Your task to perform on an android device: Set the phone to "Do not disturb". Image 0: 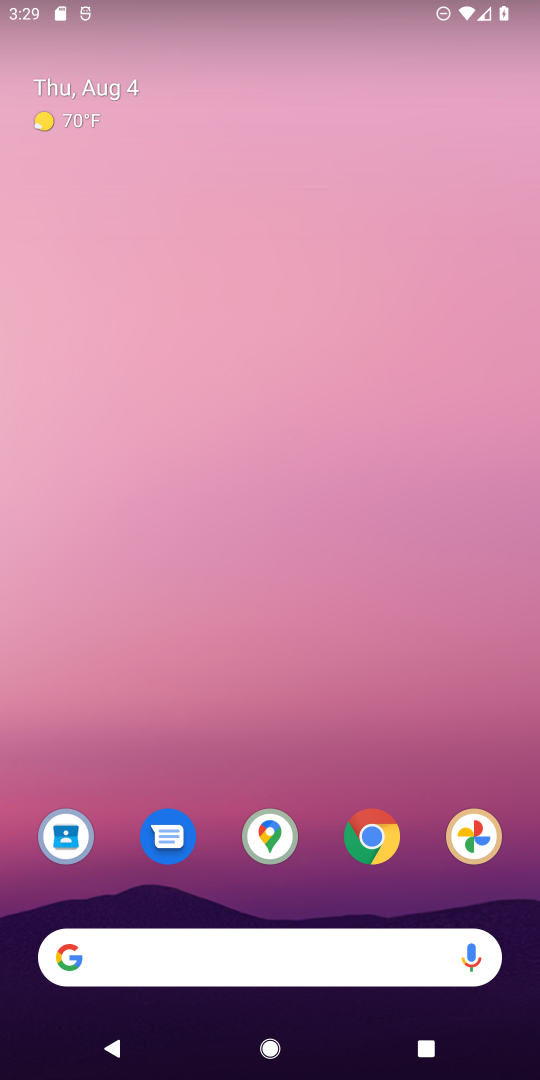
Step 0: drag from (184, 1038) to (300, 92)
Your task to perform on an android device: Set the phone to "Do not disturb". Image 1: 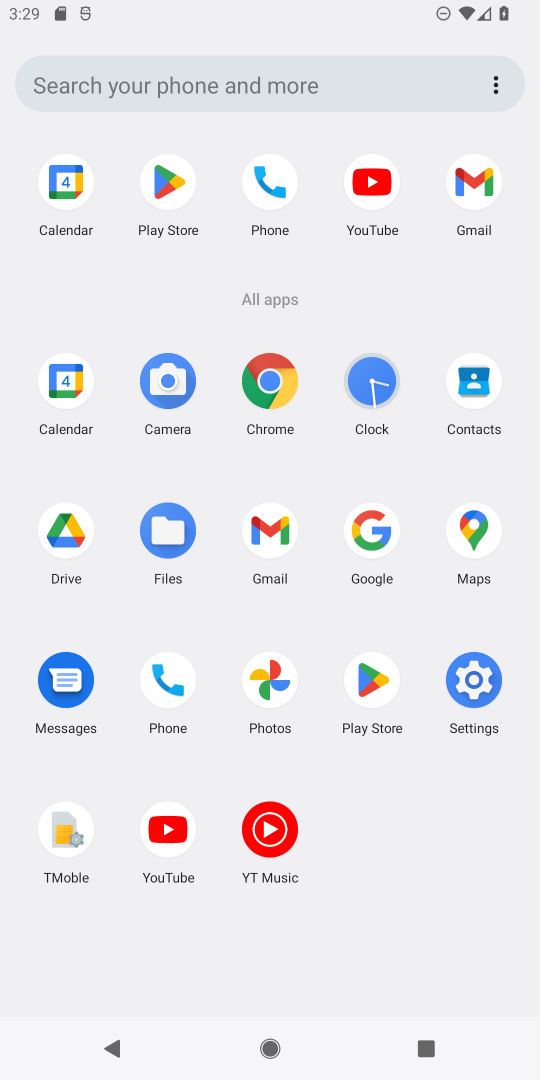
Step 1: click (483, 684)
Your task to perform on an android device: Set the phone to "Do not disturb". Image 2: 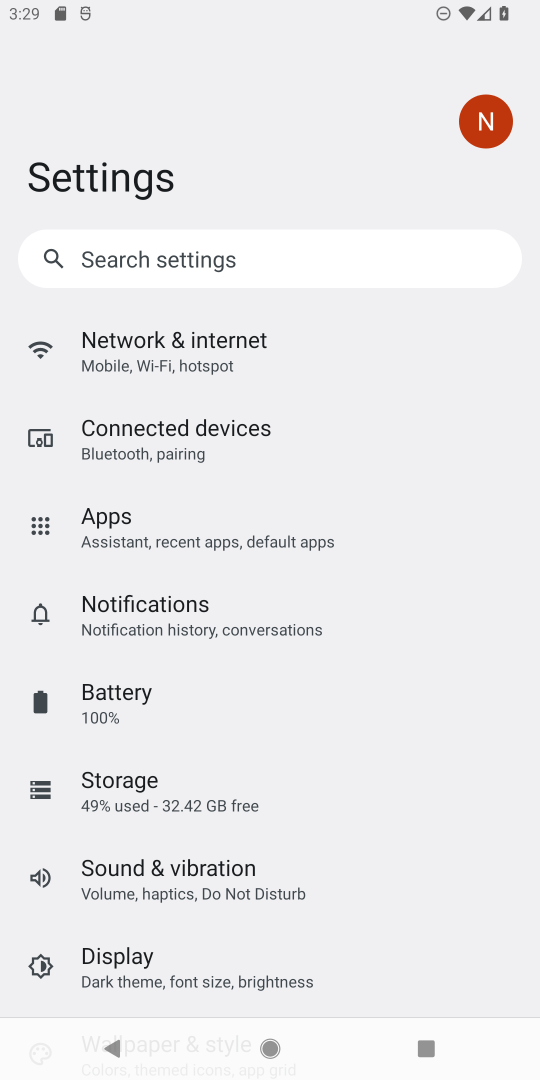
Step 2: click (136, 886)
Your task to perform on an android device: Set the phone to "Do not disturb". Image 3: 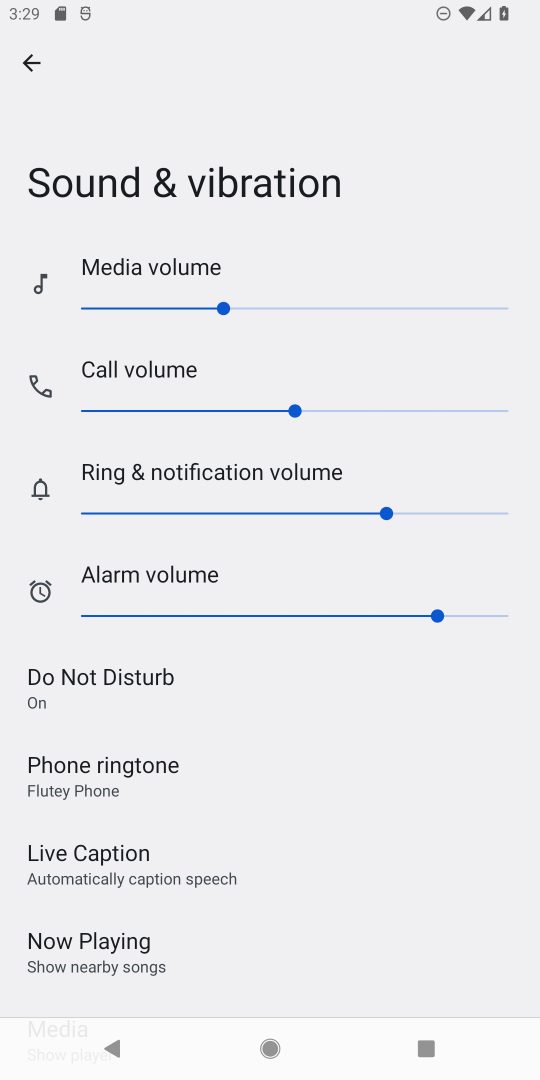
Step 3: click (82, 681)
Your task to perform on an android device: Set the phone to "Do not disturb". Image 4: 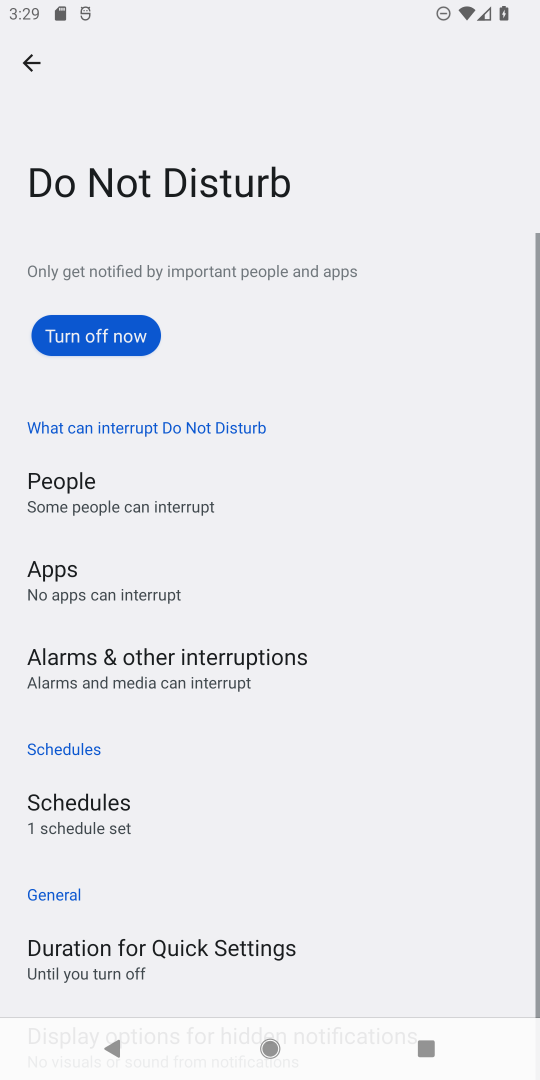
Step 4: task complete